Your task to perform on an android device: star an email in the gmail app Image 0: 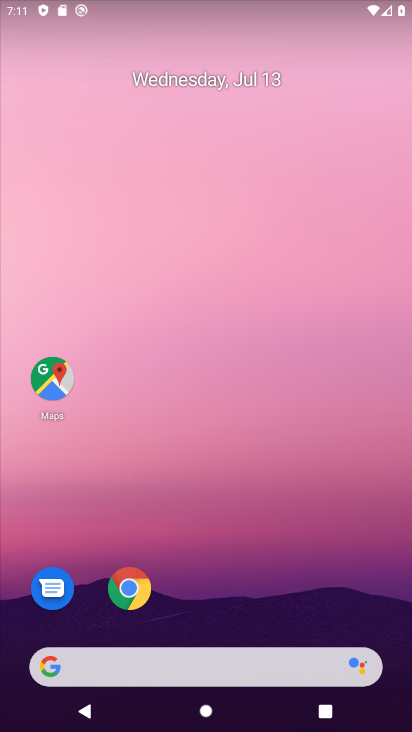
Step 0: drag from (231, 577) to (161, 90)
Your task to perform on an android device: star an email in the gmail app Image 1: 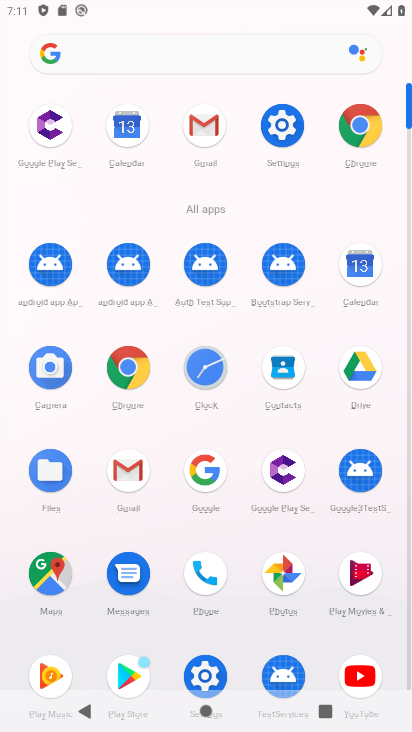
Step 1: click (207, 130)
Your task to perform on an android device: star an email in the gmail app Image 2: 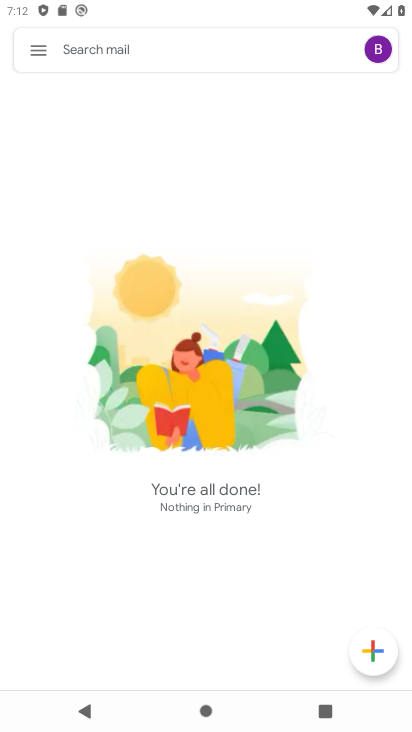
Step 2: task complete